Your task to perform on an android device: Open Google Chrome Image 0: 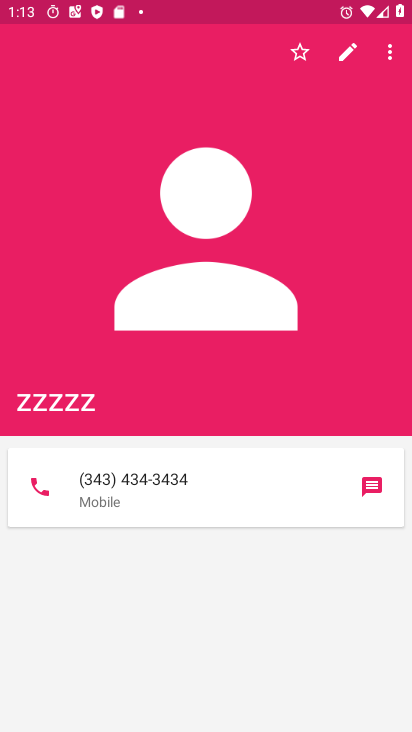
Step 0: press home button
Your task to perform on an android device: Open Google Chrome Image 1: 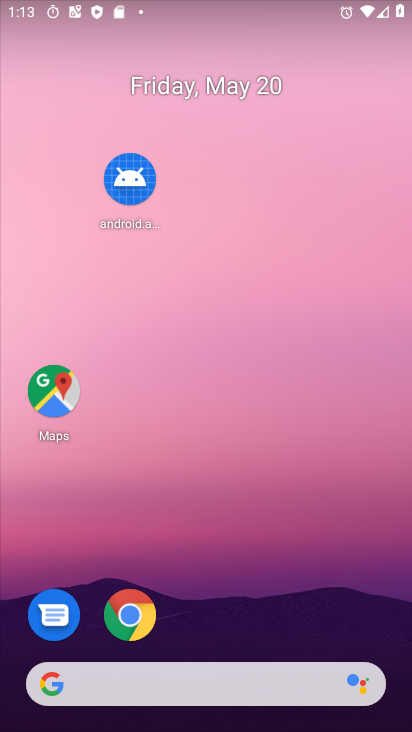
Step 1: click (117, 614)
Your task to perform on an android device: Open Google Chrome Image 2: 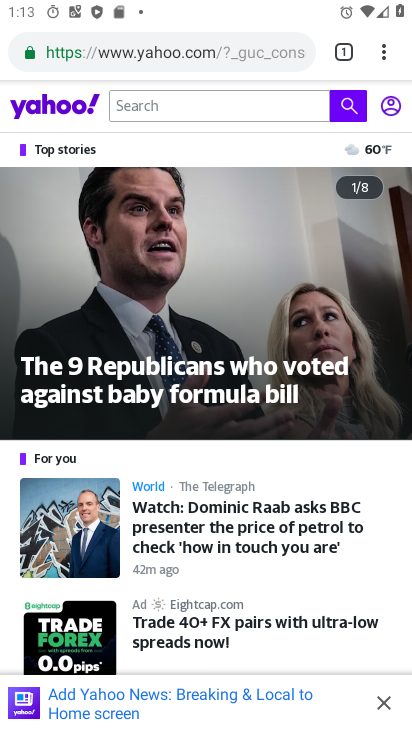
Step 2: task complete